Your task to perform on an android device: Is it going to rain tomorrow? Image 0: 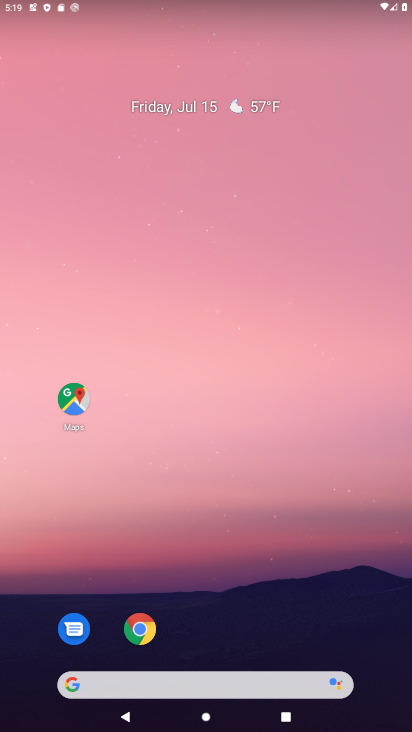
Step 0: press home button
Your task to perform on an android device: Is it going to rain tomorrow? Image 1: 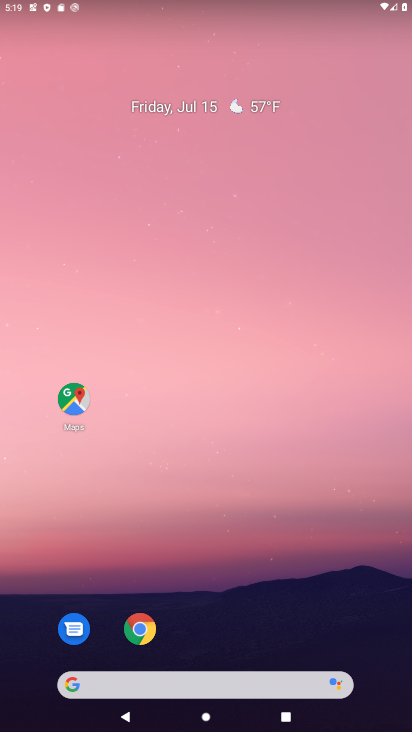
Step 1: click (74, 680)
Your task to perform on an android device: Is it going to rain tomorrow? Image 2: 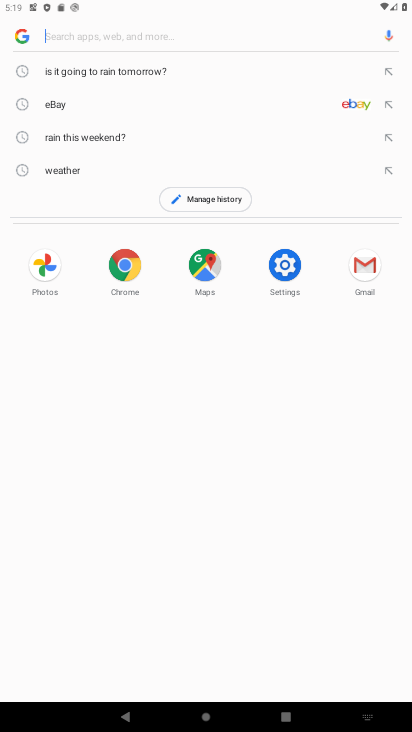
Step 2: type "Is it going to rain tomorrow?"
Your task to perform on an android device: Is it going to rain tomorrow? Image 3: 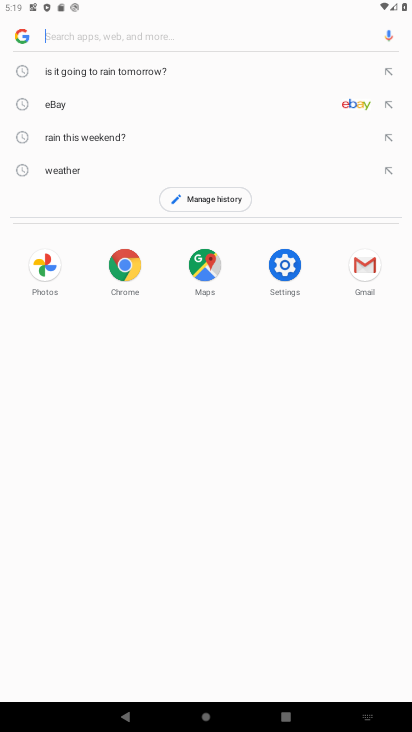
Step 3: drag from (79, 31) to (114, 70)
Your task to perform on an android device: Is it going to rain tomorrow? Image 4: 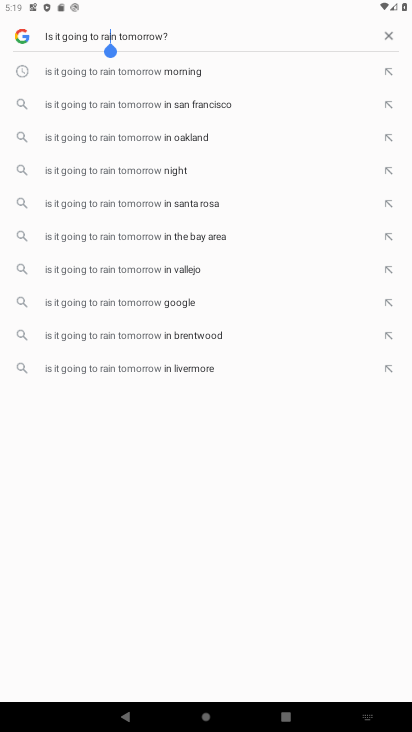
Step 4: press enter
Your task to perform on an android device: Is it going to rain tomorrow? Image 5: 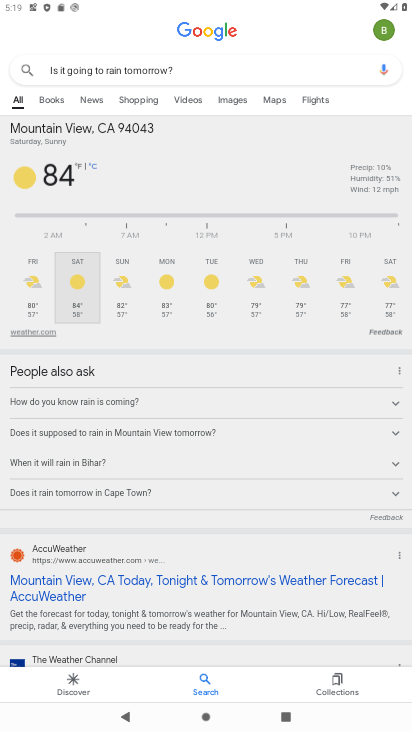
Step 5: task complete